Your task to perform on an android device: Open the calendar app, open the side menu, and click the "Day" option Image 0: 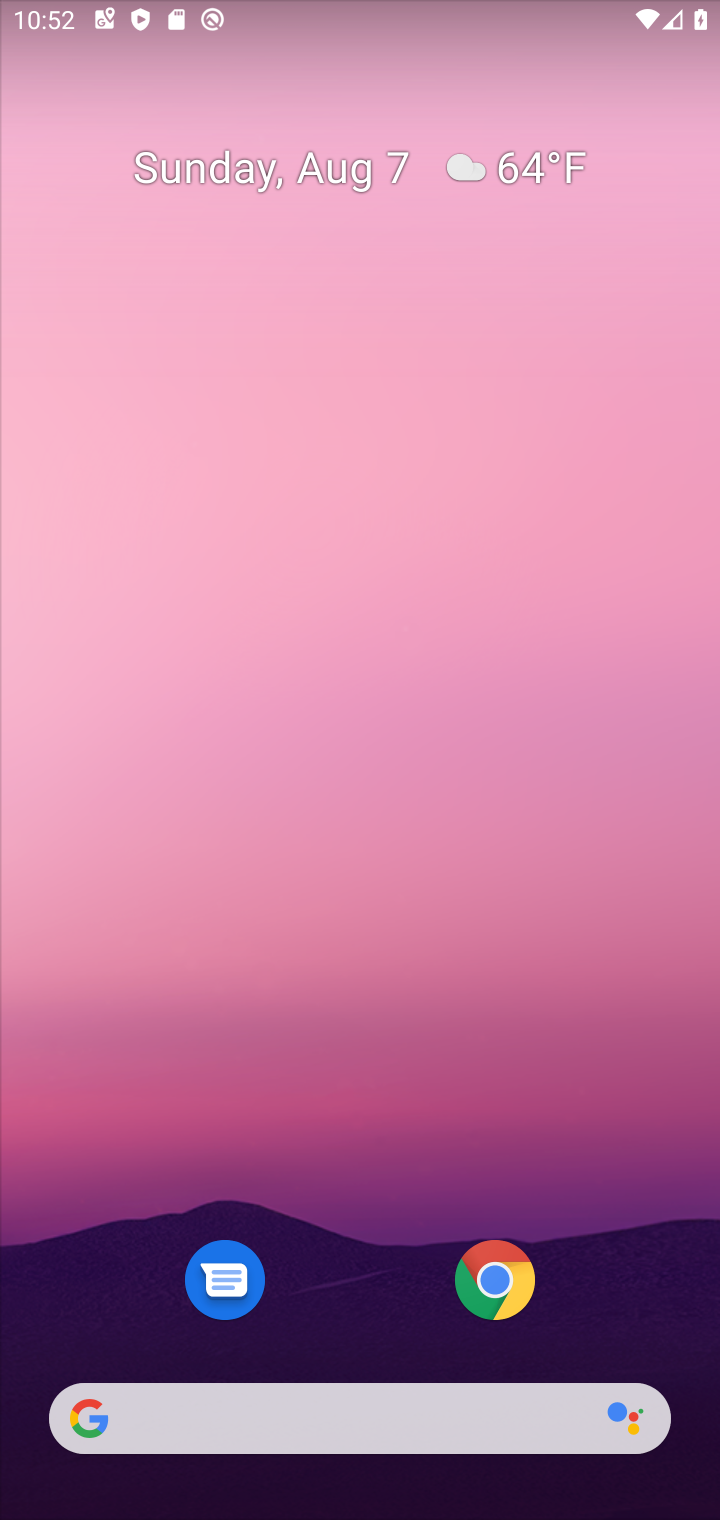
Step 0: drag from (308, 1257) to (402, 89)
Your task to perform on an android device: Open the calendar app, open the side menu, and click the "Day" option Image 1: 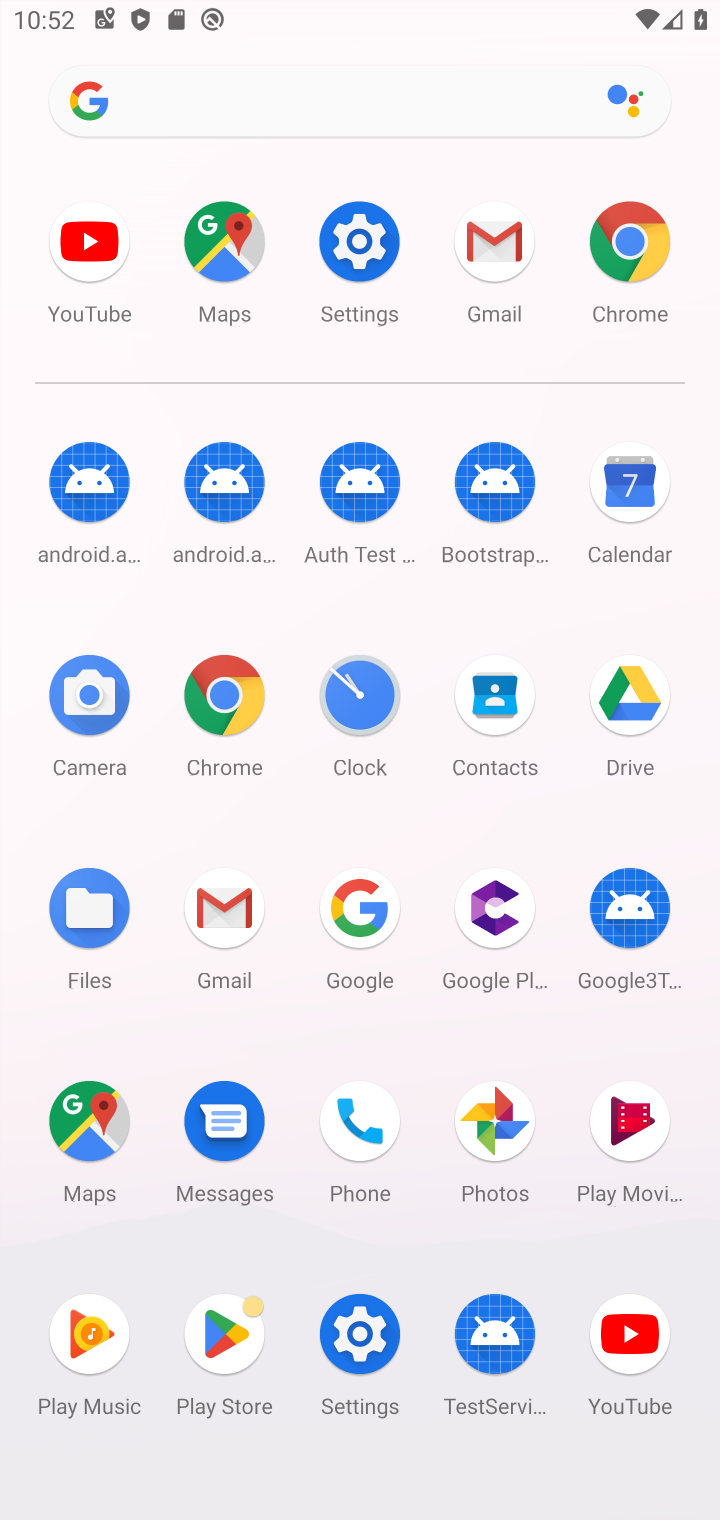
Step 1: click (628, 497)
Your task to perform on an android device: Open the calendar app, open the side menu, and click the "Day" option Image 2: 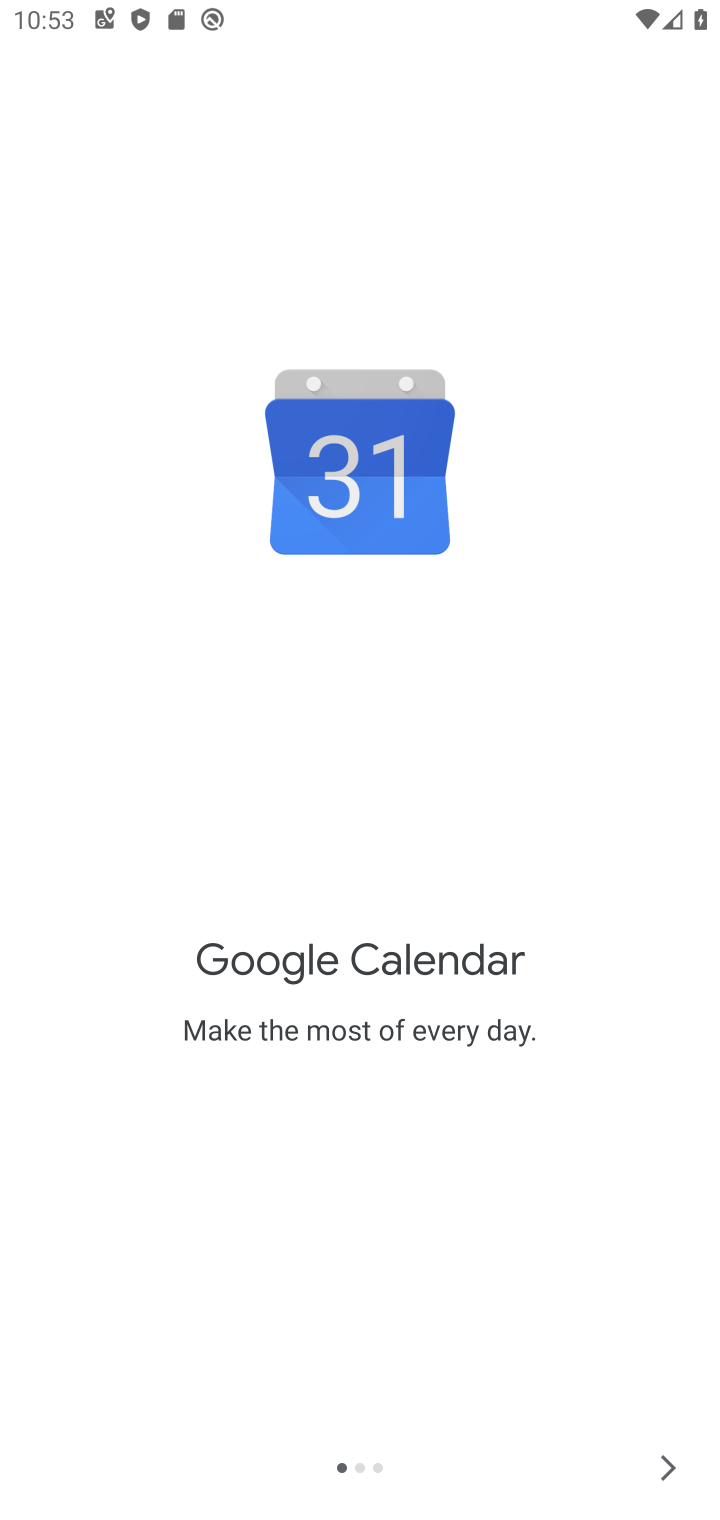
Step 2: click (680, 1441)
Your task to perform on an android device: Open the calendar app, open the side menu, and click the "Day" option Image 3: 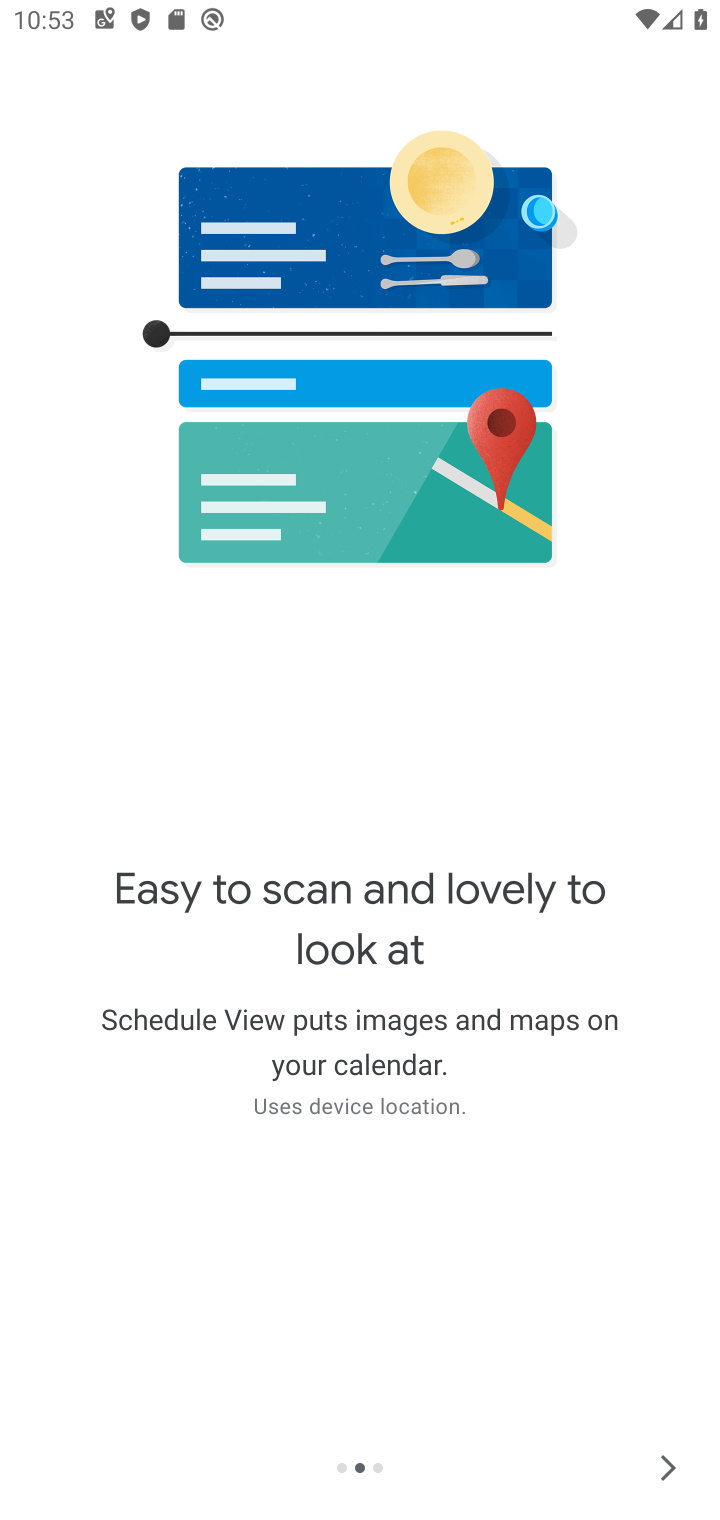
Step 3: click (662, 1448)
Your task to perform on an android device: Open the calendar app, open the side menu, and click the "Day" option Image 4: 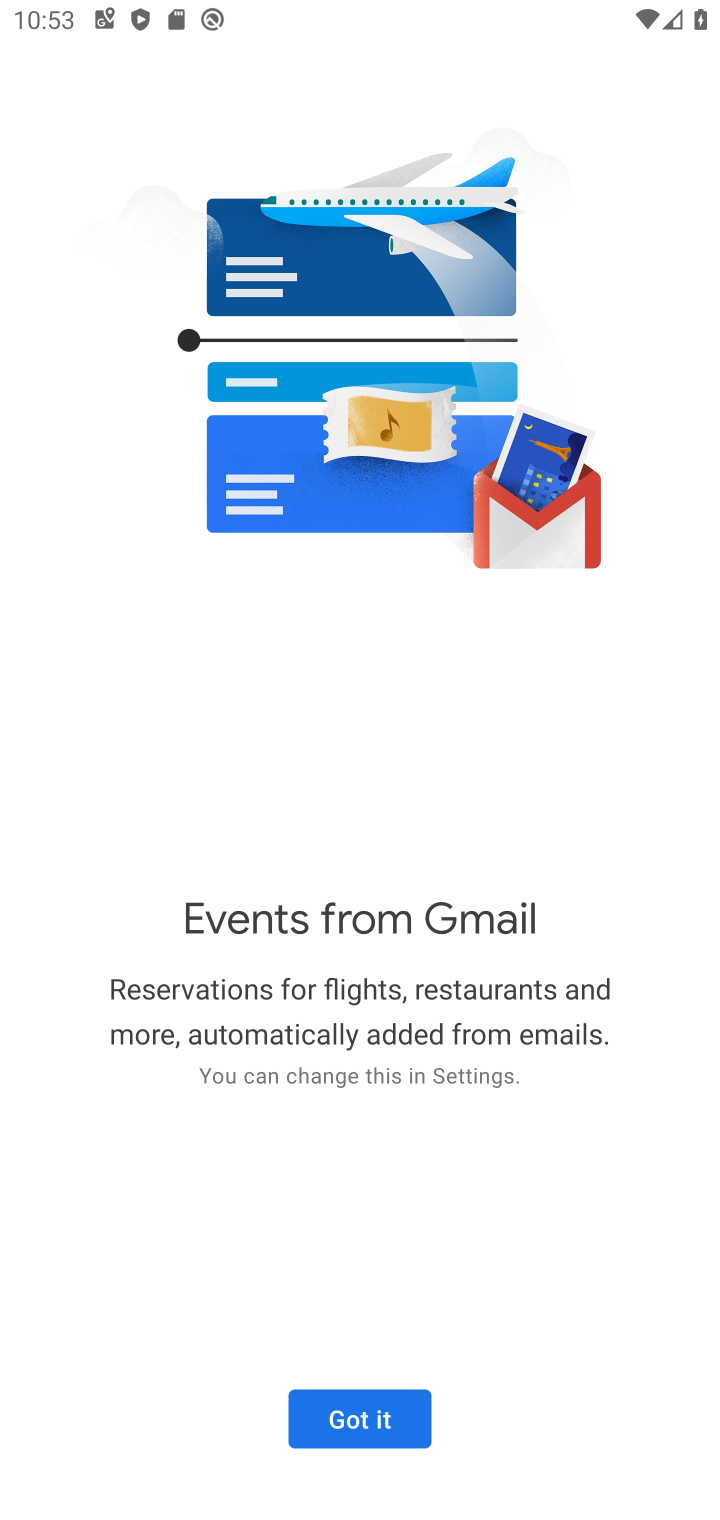
Step 4: click (338, 1460)
Your task to perform on an android device: Open the calendar app, open the side menu, and click the "Day" option Image 5: 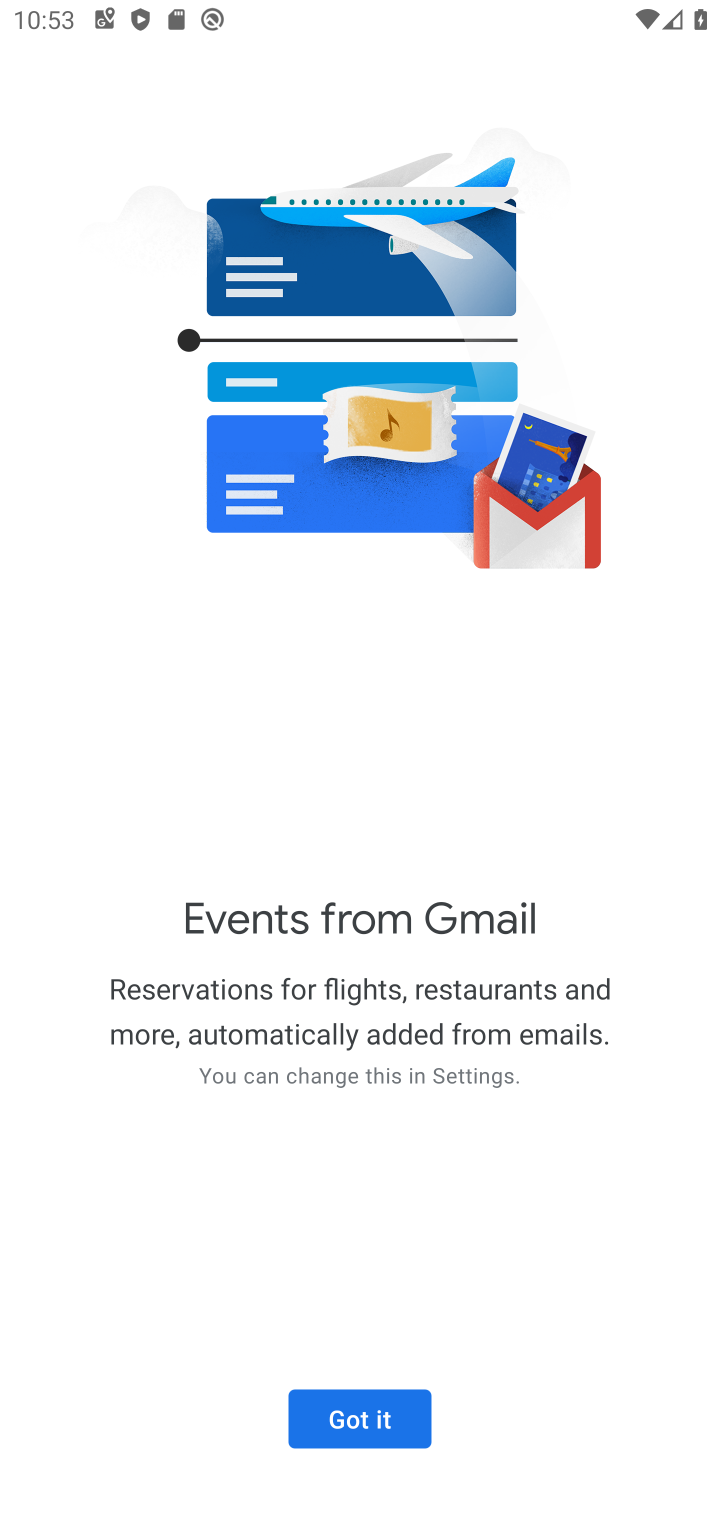
Step 5: click (390, 1435)
Your task to perform on an android device: Open the calendar app, open the side menu, and click the "Day" option Image 6: 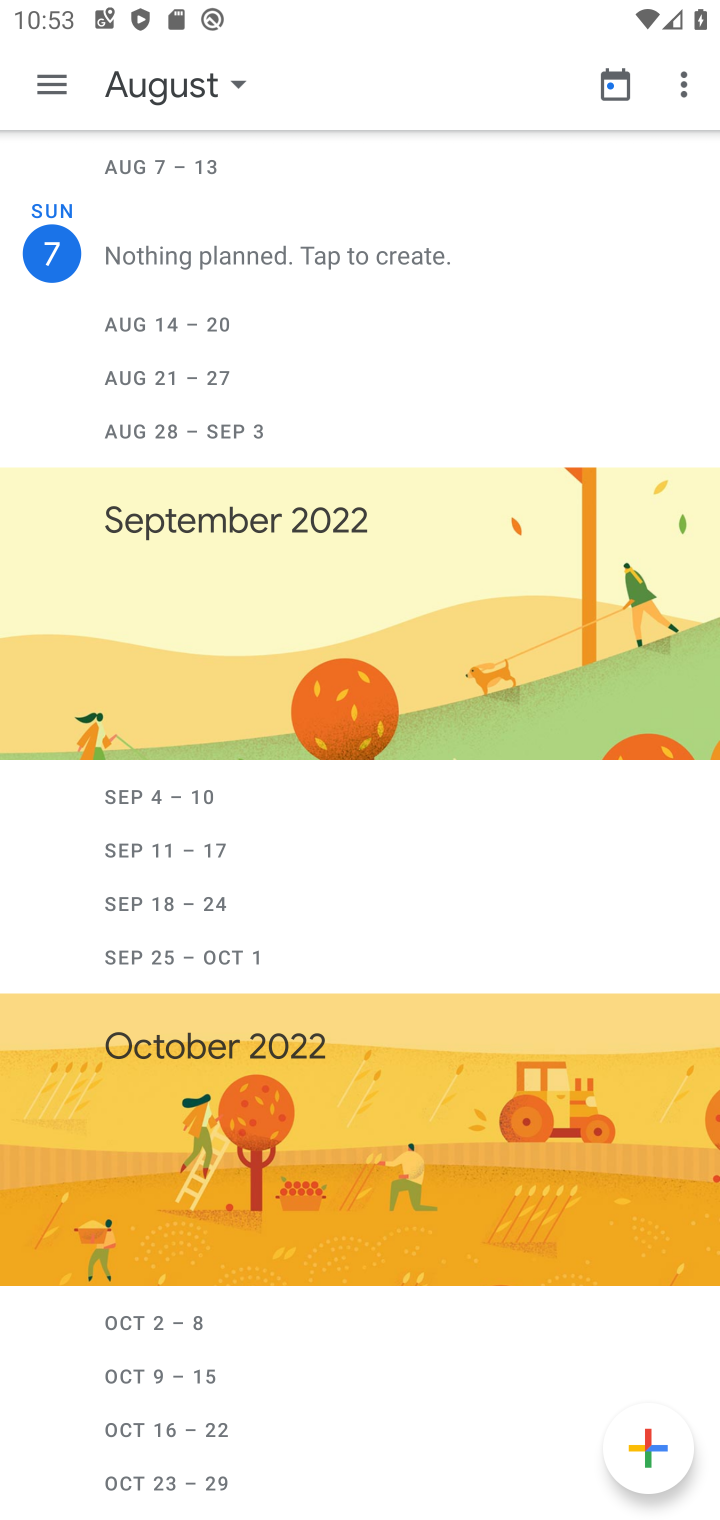
Step 6: click (51, 86)
Your task to perform on an android device: Open the calendar app, open the side menu, and click the "Day" option Image 7: 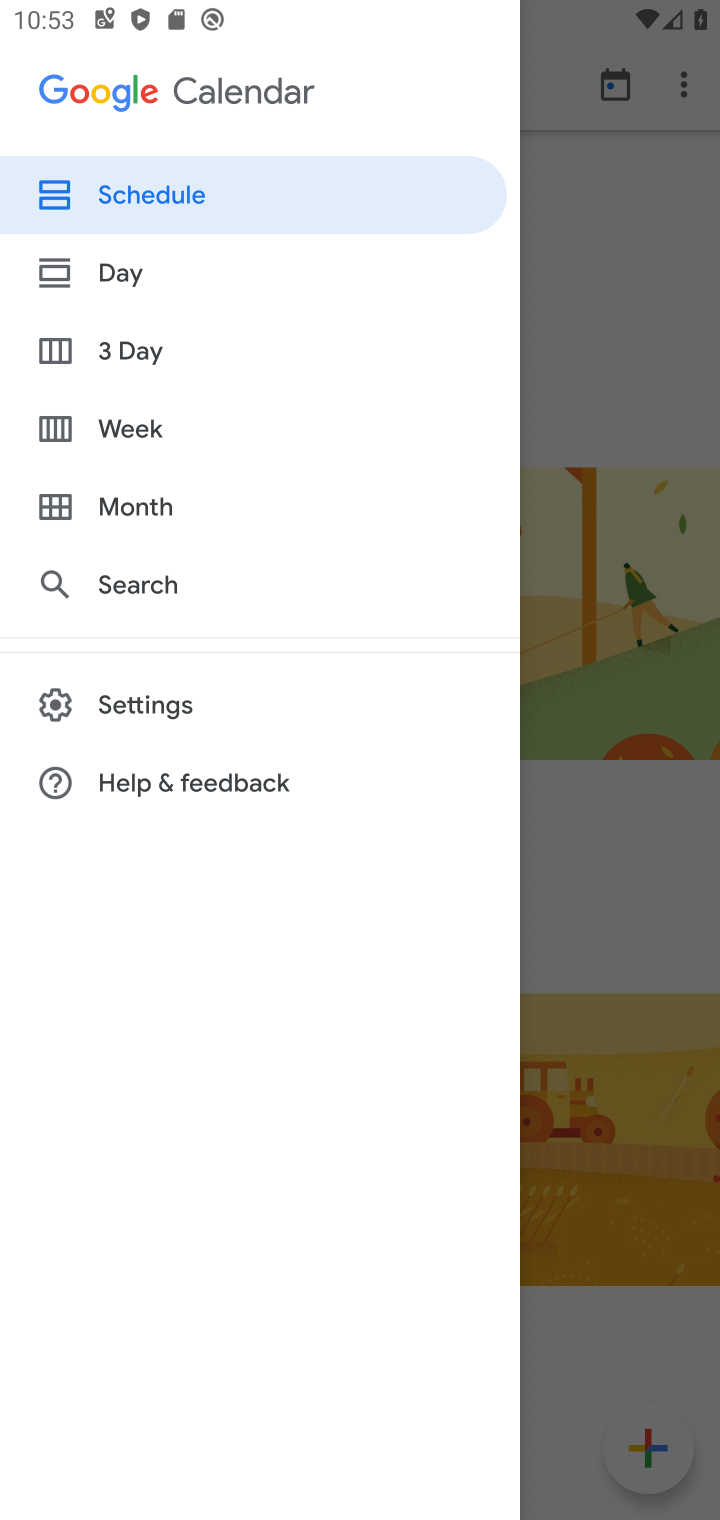
Step 7: click (189, 297)
Your task to perform on an android device: Open the calendar app, open the side menu, and click the "Day" option Image 8: 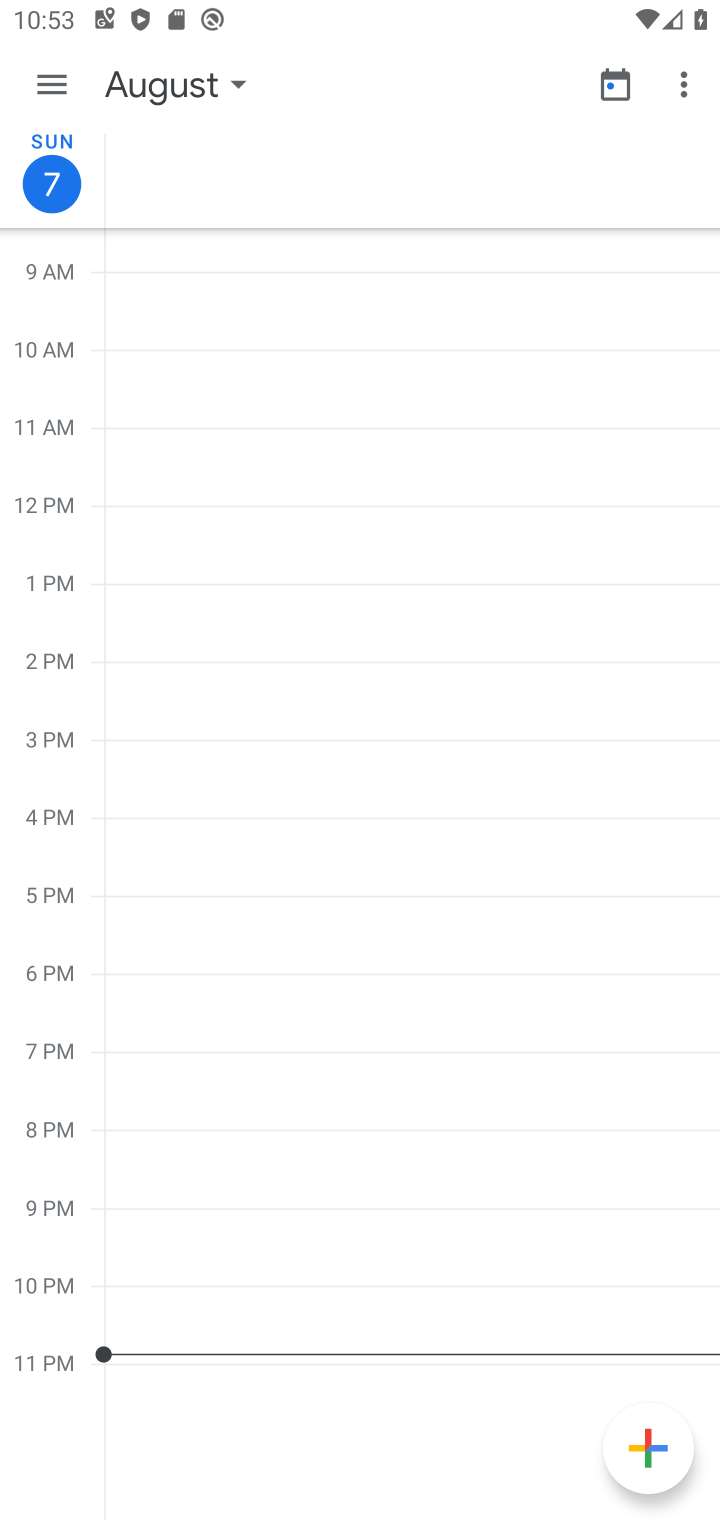
Step 8: task complete